Your task to perform on an android device: Open calendar and show me the second week of next month Image 0: 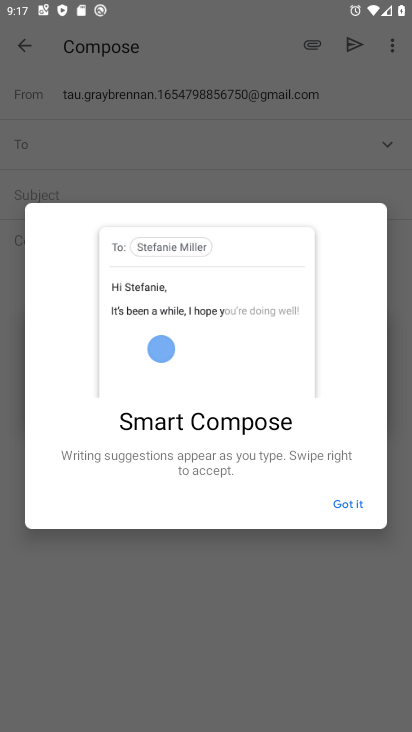
Step 0: press home button
Your task to perform on an android device: Open calendar and show me the second week of next month Image 1: 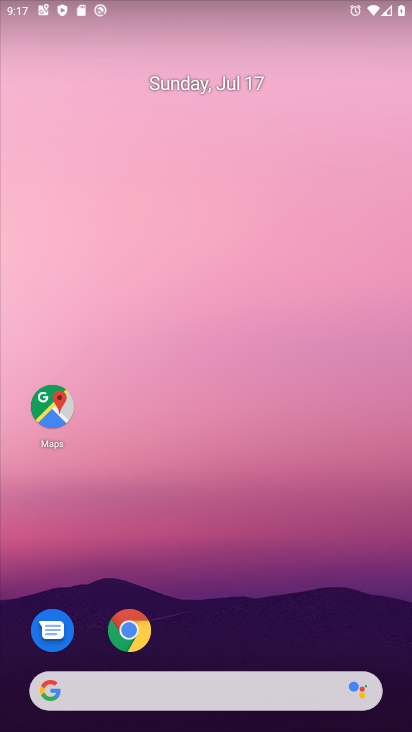
Step 1: drag from (344, 616) to (359, 72)
Your task to perform on an android device: Open calendar and show me the second week of next month Image 2: 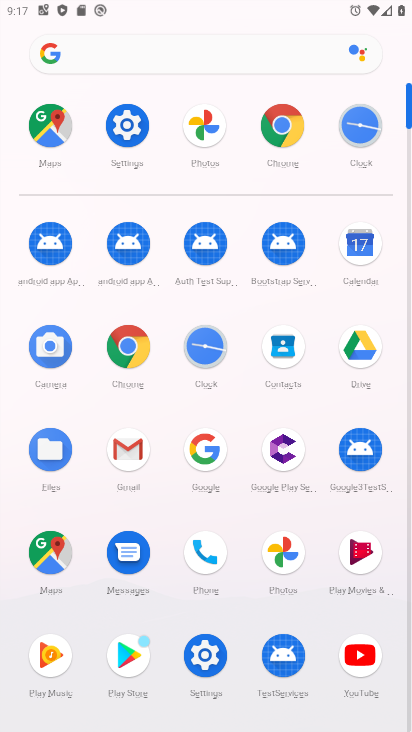
Step 2: click (366, 251)
Your task to perform on an android device: Open calendar and show me the second week of next month Image 3: 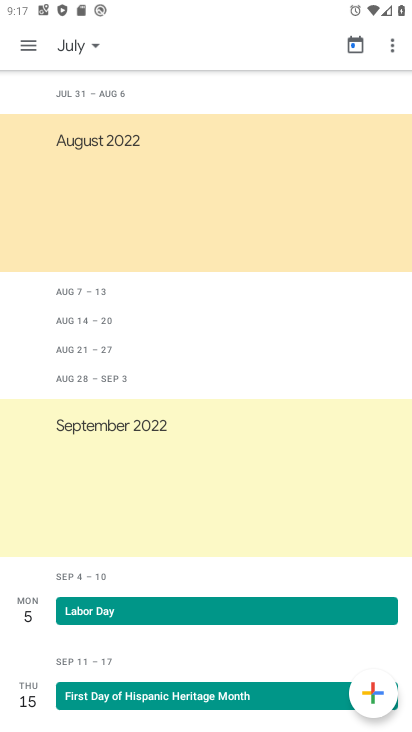
Step 3: click (105, 52)
Your task to perform on an android device: Open calendar and show me the second week of next month Image 4: 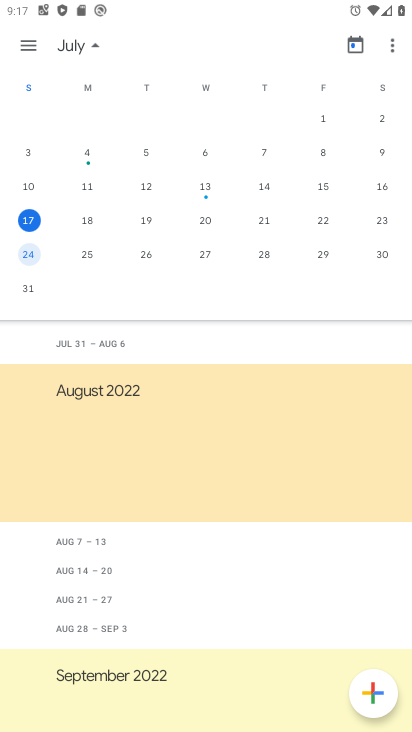
Step 4: drag from (397, 134) to (9, 128)
Your task to perform on an android device: Open calendar and show me the second week of next month Image 5: 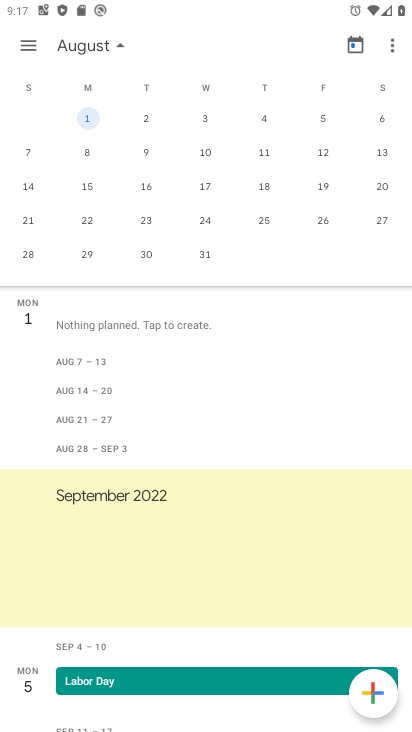
Step 5: click (92, 157)
Your task to perform on an android device: Open calendar and show me the second week of next month Image 6: 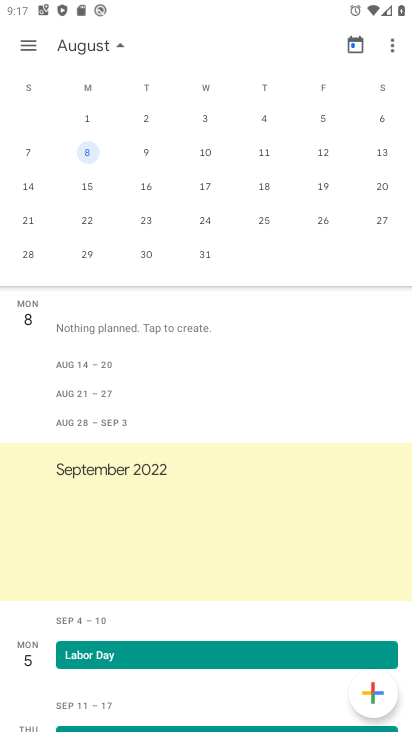
Step 6: task complete